Your task to perform on an android device: Check the news Image 0: 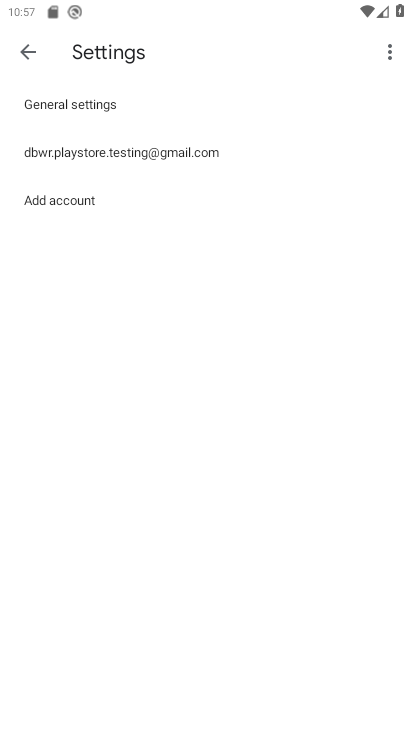
Step 0: press home button
Your task to perform on an android device: Check the news Image 1: 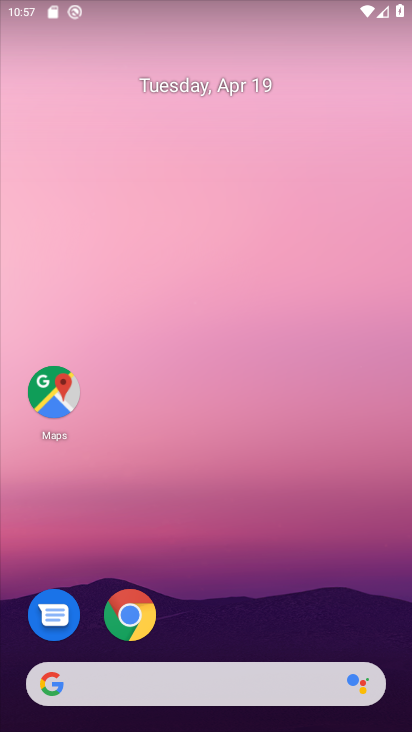
Step 1: drag from (247, 611) to (245, 221)
Your task to perform on an android device: Check the news Image 2: 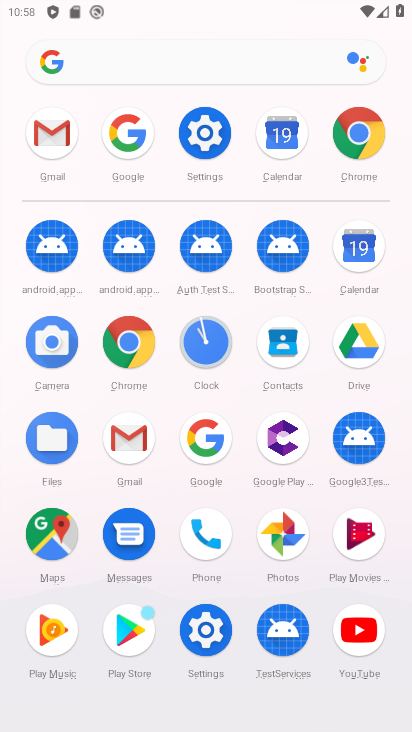
Step 2: click (205, 443)
Your task to perform on an android device: Check the news Image 3: 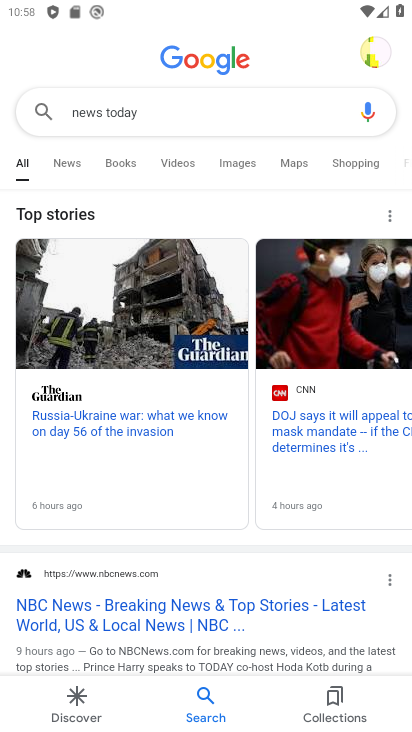
Step 3: click (213, 119)
Your task to perform on an android device: Check the news Image 4: 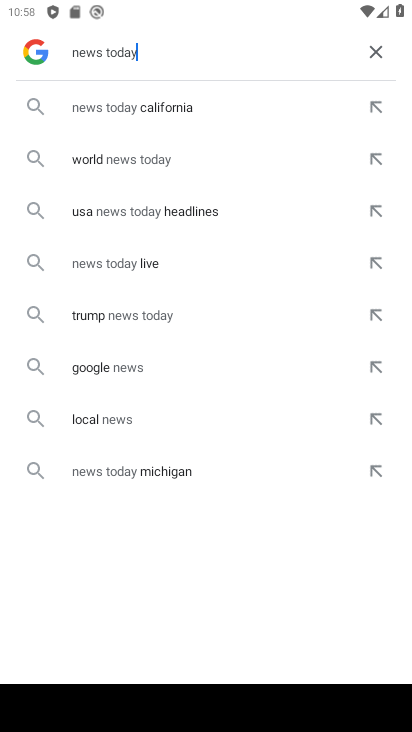
Step 4: type "news"
Your task to perform on an android device: Check the news Image 5: 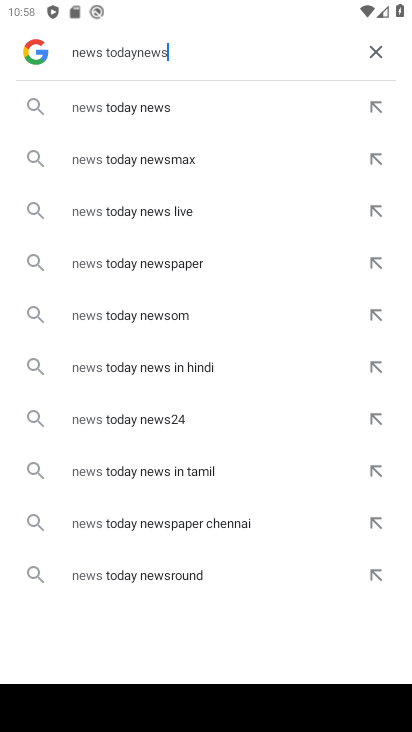
Step 5: click (374, 52)
Your task to perform on an android device: Check the news Image 6: 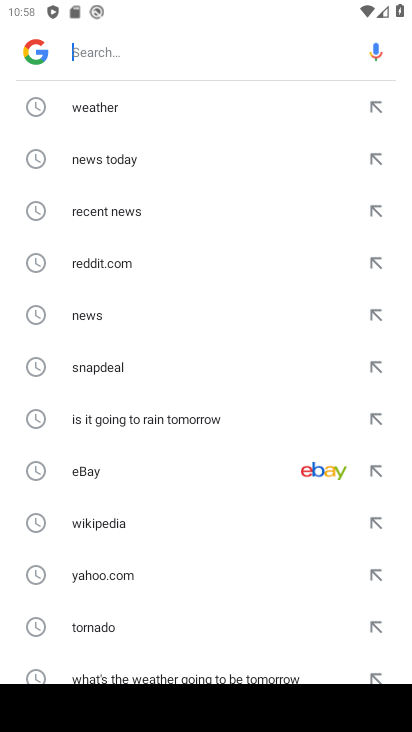
Step 6: click (113, 311)
Your task to perform on an android device: Check the news Image 7: 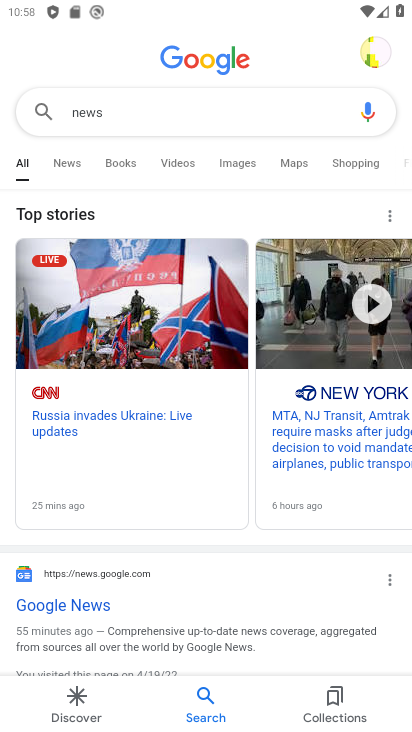
Step 7: task complete